Your task to perform on an android device: Open privacy settings Image 0: 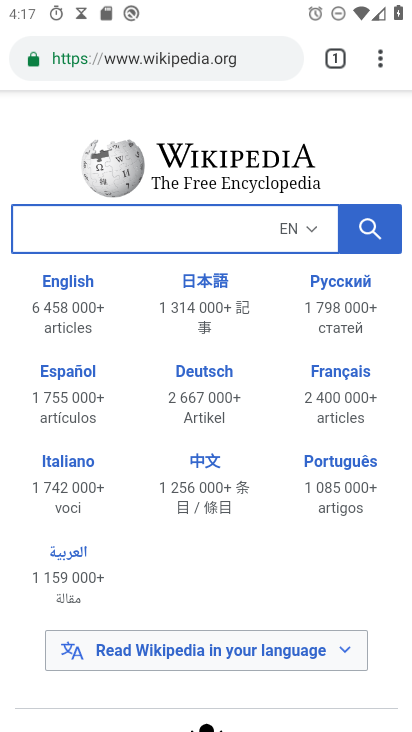
Step 0: press home button
Your task to perform on an android device: Open privacy settings Image 1: 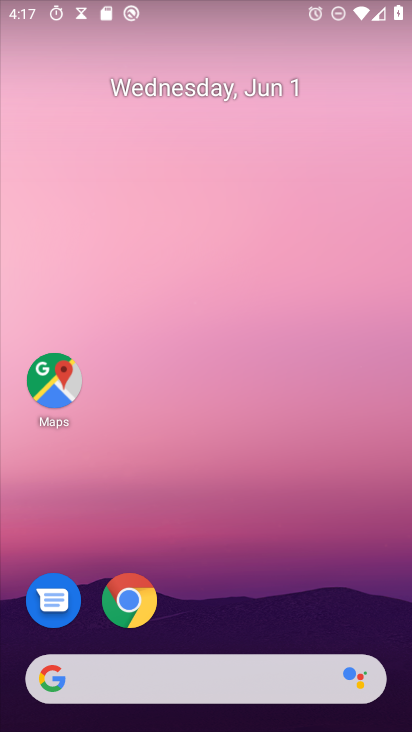
Step 1: drag from (225, 610) to (207, 283)
Your task to perform on an android device: Open privacy settings Image 2: 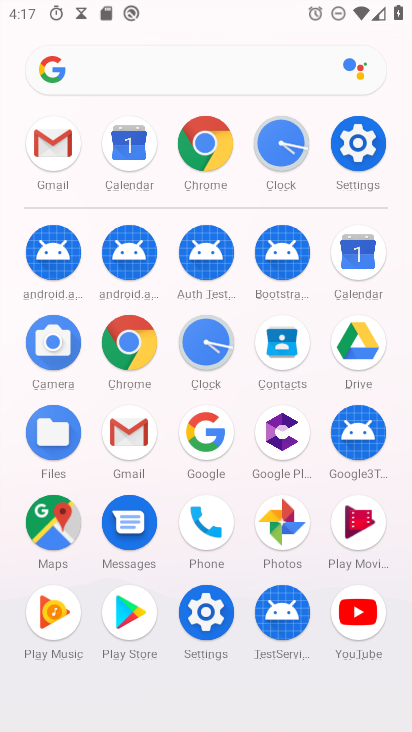
Step 2: click (355, 148)
Your task to perform on an android device: Open privacy settings Image 3: 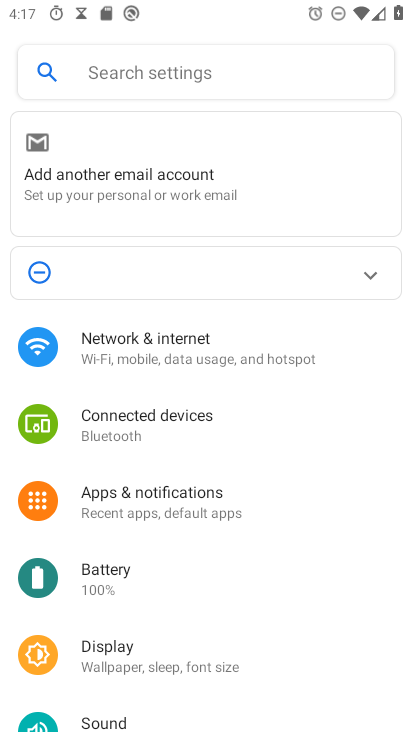
Step 3: drag from (136, 669) to (158, 264)
Your task to perform on an android device: Open privacy settings Image 4: 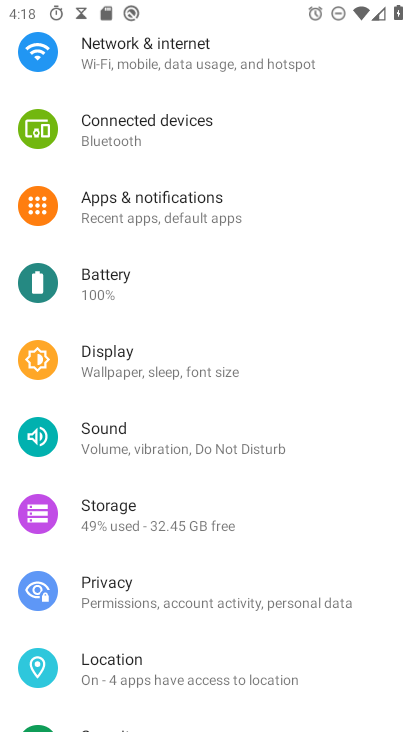
Step 4: drag from (149, 624) to (179, 304)
Your task to perform on an android device: Open privacy settings Image 5: 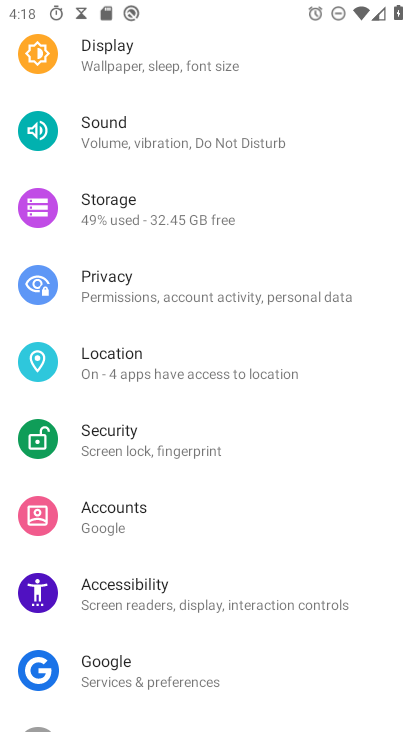
Step 5: drag from (145, 598) to (185, 406)
Your task to perform on an android device: Open privacy settings Image 6: 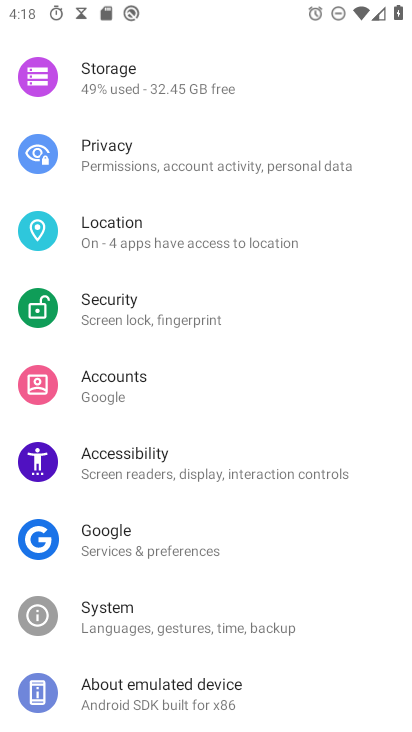
Step 6: click (152, 175)
Your task to perform on an android device: Open privacy settings Image 7: 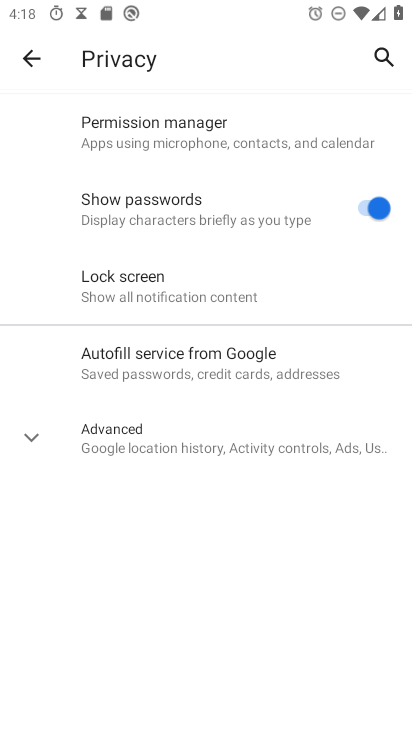
Step 7: task complete